Your task to perform on an android device: Do I have any events this weekend? Image 0: 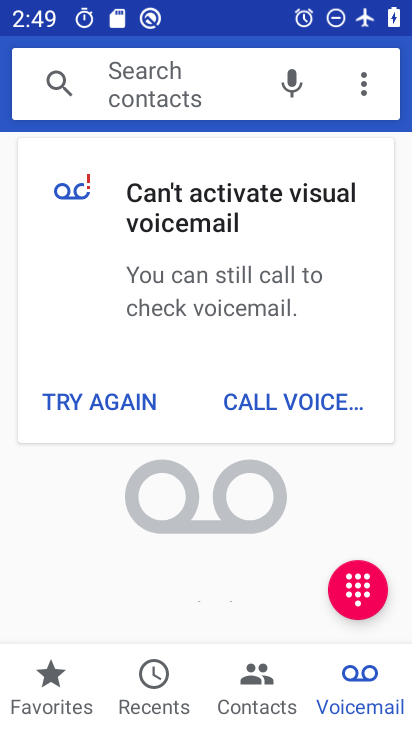
Step 0: press home button
Your task to perform on an android device: Do I have any events this weekend? Image 1: 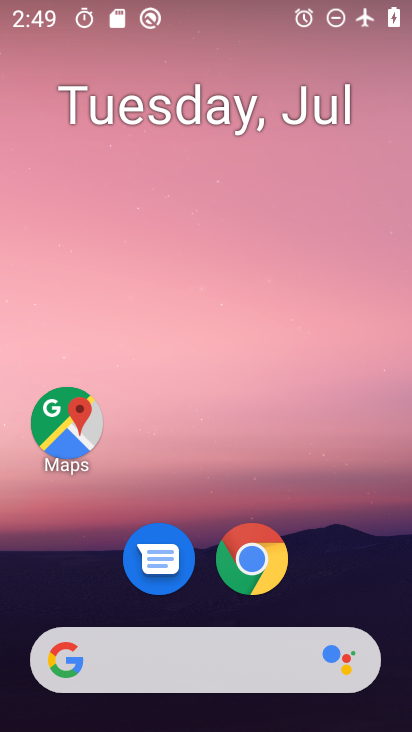
Step 1: drag from (361, 585) to (382, 252)
Your task to perform on an android device: Do I have any events this weekend? Image 2: 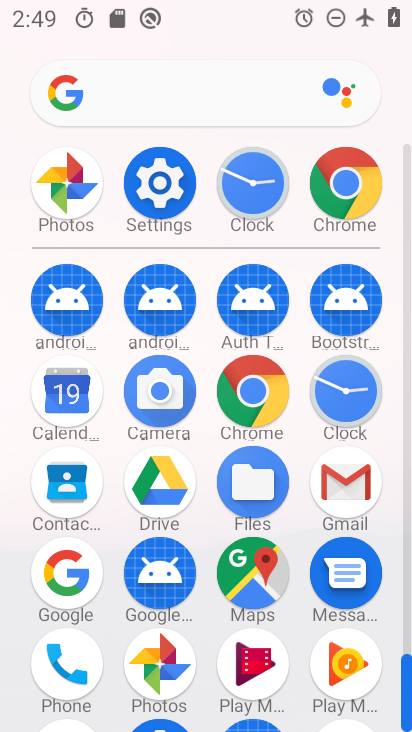
Step 2: click (71, 394)
Your task to perform on an android device: Do I have any events this weekend? Image 3: 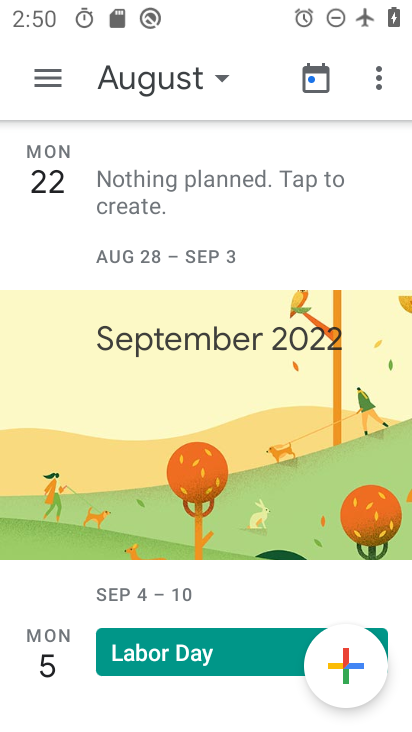
Step 3: drag from (212, 237) to (224, 386)
Your task to perform on an android device: Do I have any events this weekend? Image 4: 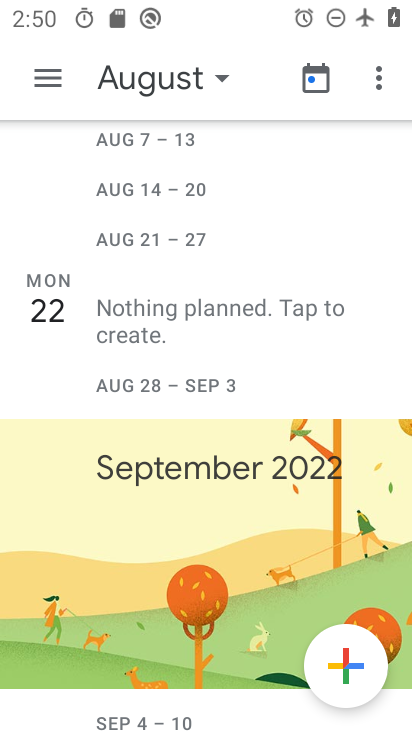
Step 4: drag from (230, 198) to (240, 382)
Your task to perform on an android device: Do I have any events this weekend? Image 5: 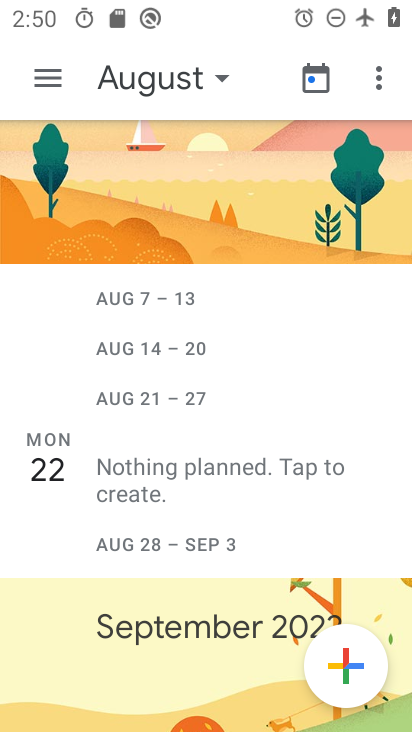
Step 5: drag from (246, 193) to (247, 372)
Your task to perform on an android device: Do I have any events this weekend? Image 6: 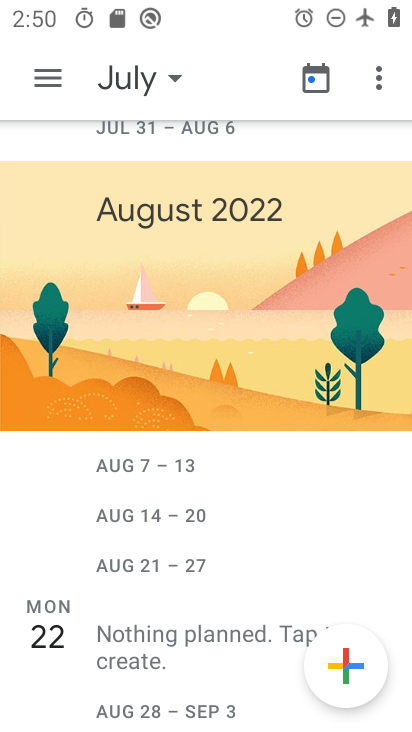
Step 6: drag from (253, 202) to (230, 388)
Your task to perform on an android device: Do I have any events this weekend? Image 7: 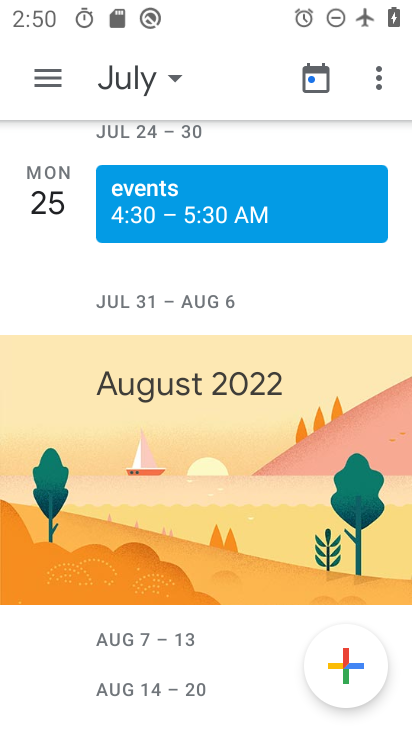
Step 7: drag from (217, 202) to (215, 456)
Your task to perform on an android device: Do I have any events this weekend? Image 8: 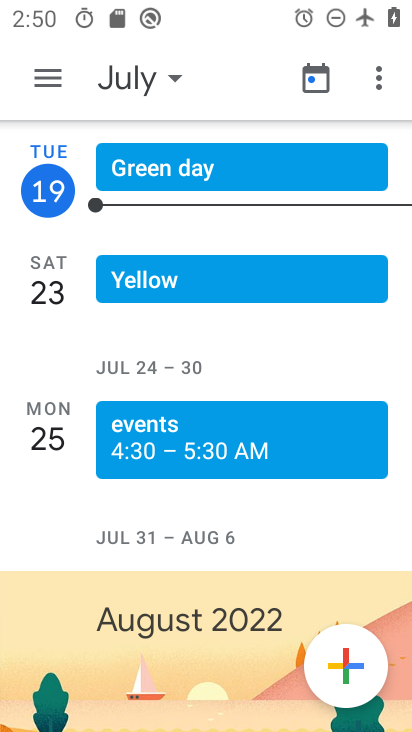
Step 8: click (231, 276)
Your task to perform on an android device: Do I have any events this weekend? Image 9: 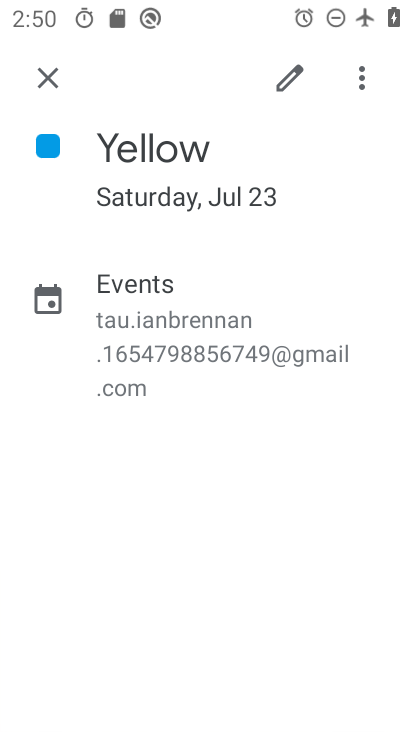
Step 9: task complete